Your task to perform on an android device: change the upload size in google photos Image 0: 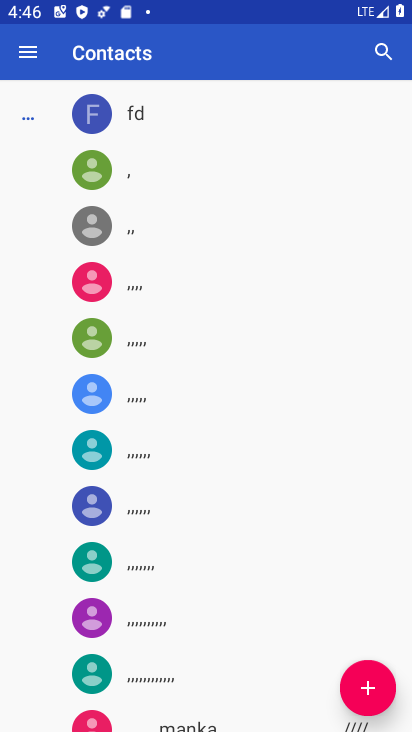
Step 0: press home button
Your task to perform on an android device: change the upload size in google photos Image 1: 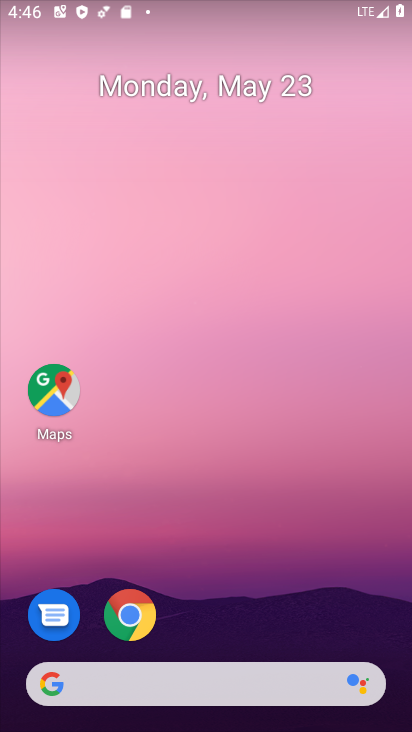
Step 1: drag from (205, 622) to (228, 50)
Your task to perform on an android device: change the upload size in google photos Image 2: 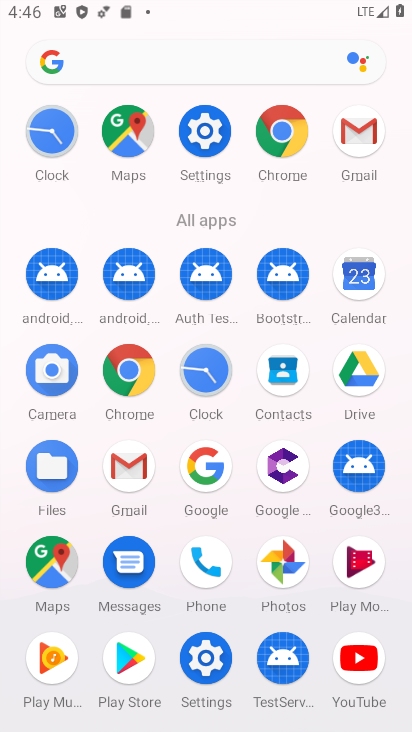
Step 2: click (280, 549)
Your task to perform on an android device: change the upload size in google photos Image 3: 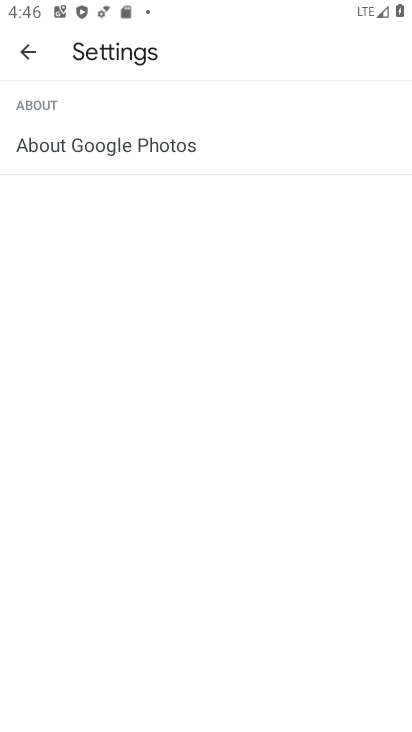
Step 3: click (32, 51)
Your task to perform on an android device: change the upload size in google photos Image 4: 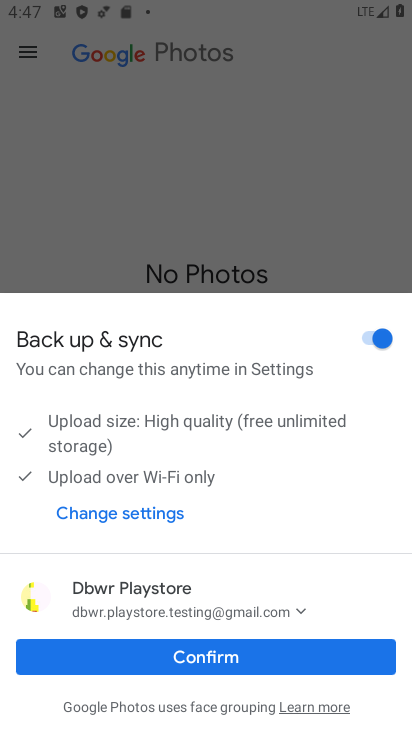
Step 4: click (230, 660)
Your task to perform on an android device: change the upload size in google photos Image 5: 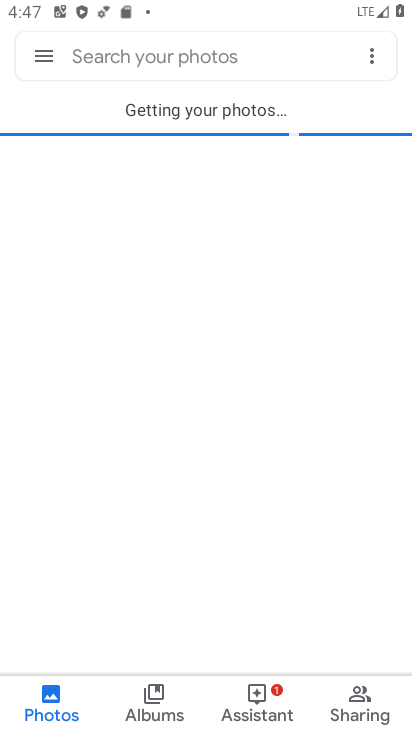
Step 5: click (40, 63)
Your task to perform on an android device: change the upload size in google photos Image 6: 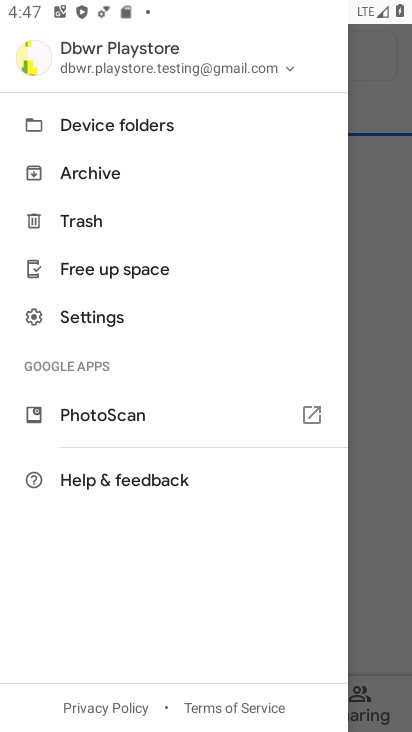
Step 6: click (91, 312)
Your task to perform on an android device: change the upload size in google photos Image 7: 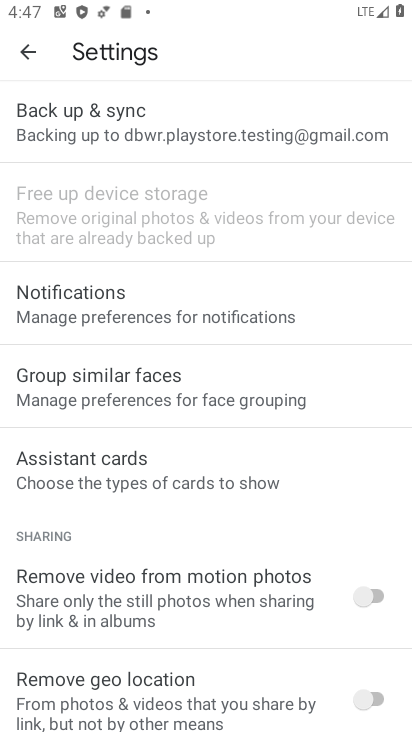
Step 7: click (64, 117)
Your task to perform on an android device: change the upload size in google photos Image 8: 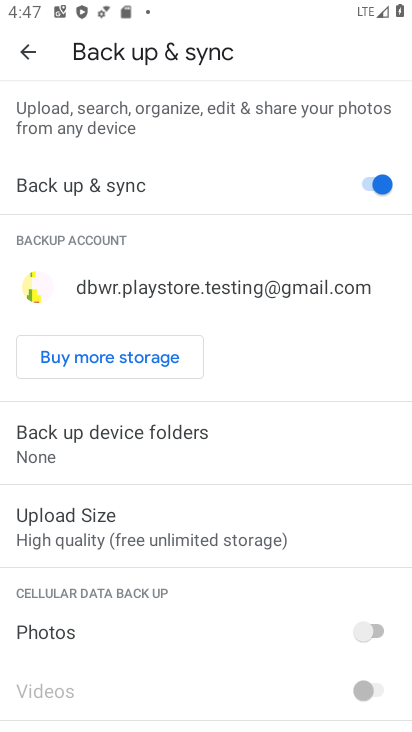
Step 8: click (82, 511)
Your task to perform on an android device: change the upload size in google photos Image 9: 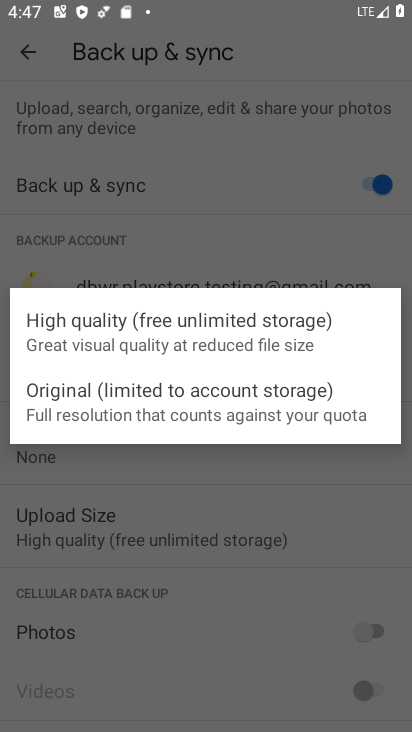
Step 9: click (138, 394)
Your task to perform on an android device: change the upload size in google photos Image 10: 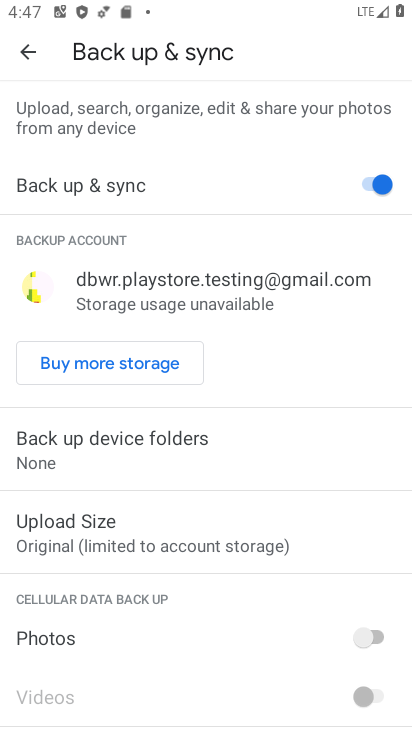
Step 10: task complete